Your task to perform on an android device: Open calendar and show me the first week of next month Image 0: 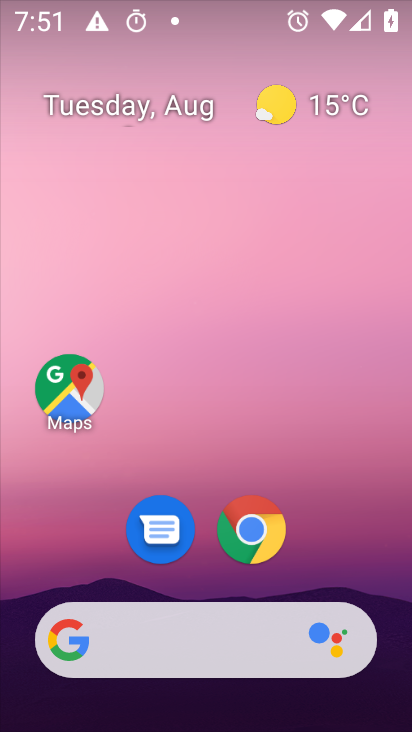
Step 0: press home button
Your task to perform on an android device: Open calendar and show me the first week of next month Image 1: 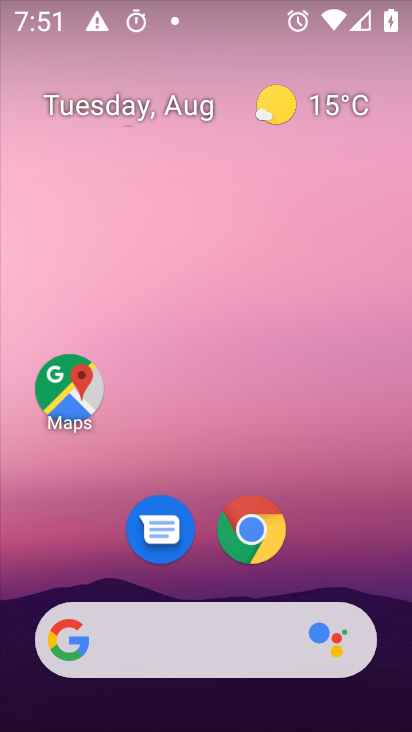
Step 1: drag from (224, 573) to (216, 8)
Your task to perform on an android device: Open calendar and show me the first week of next month Image 2: 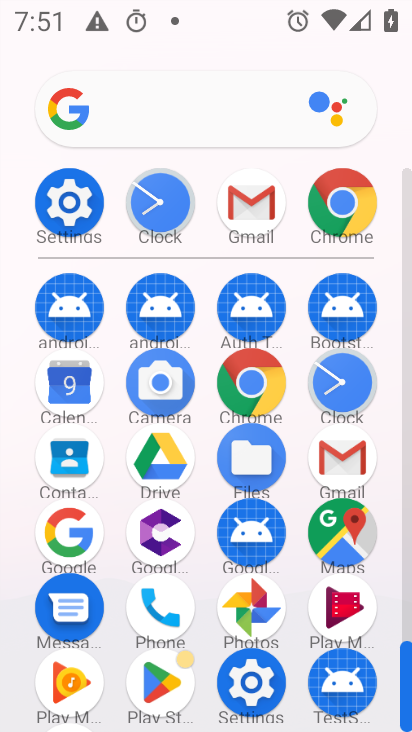
Step 2: click (64, 380)
Your task to perform on an android device: Open calendar and show me the first week of next month Image 3: 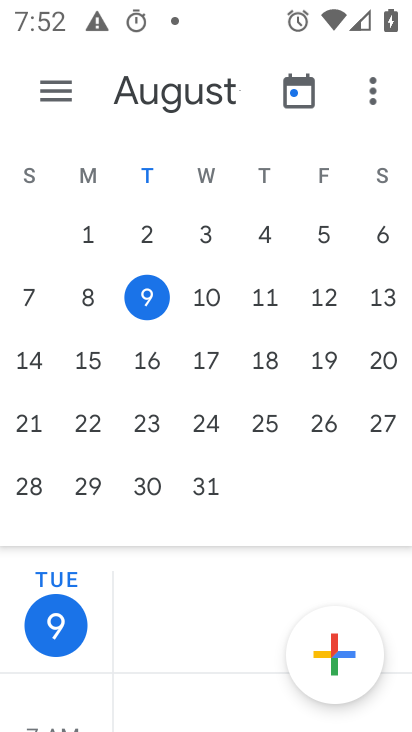
Step 3: drag from (313, 266) to (23, 264)
Your task to perform on an android device: Open calendar and show me the first week of next month Image 4: 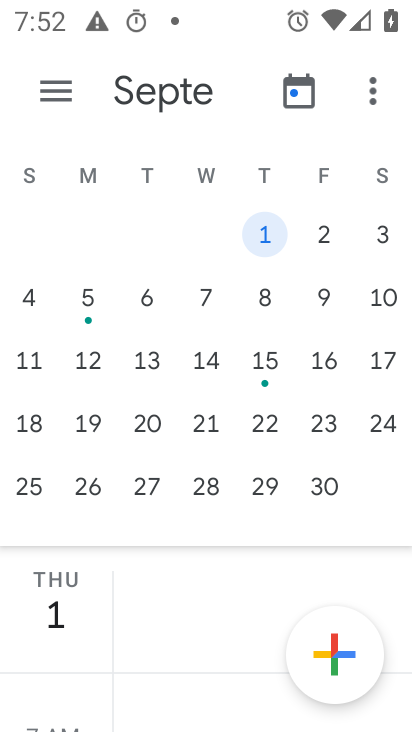
Step 4: click (320, 243)
Your task to perform on an android device: Open calendar and show me the first week of next month Image 5: 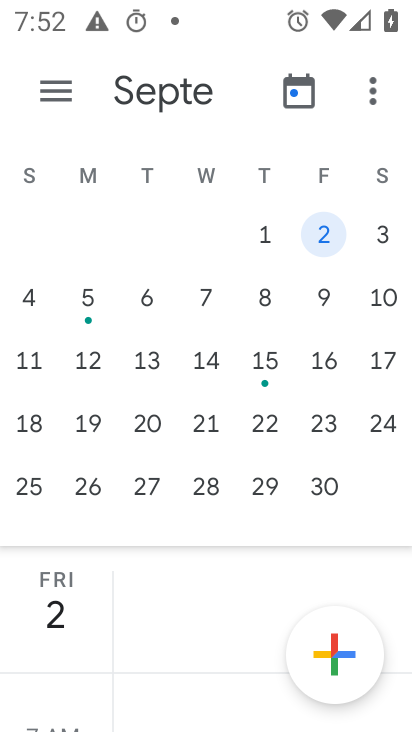
Step 5: click (377, 243)
Your task to perform on an android device: Open calendar and show me the first week of next month Image 6: 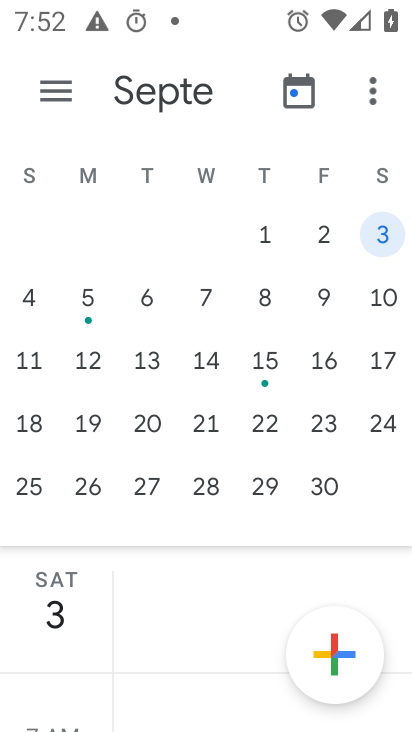
Step 6: click (22, 306)
Your task to perform on an android device: Open calendar and show me the first week of next month Image 7: 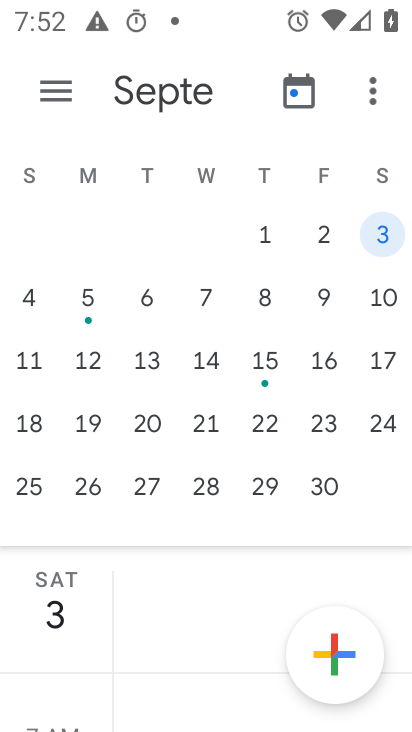
Step 7: task complete